Your task to perform on an android device: turn on data saver in the chrome app Image 0: 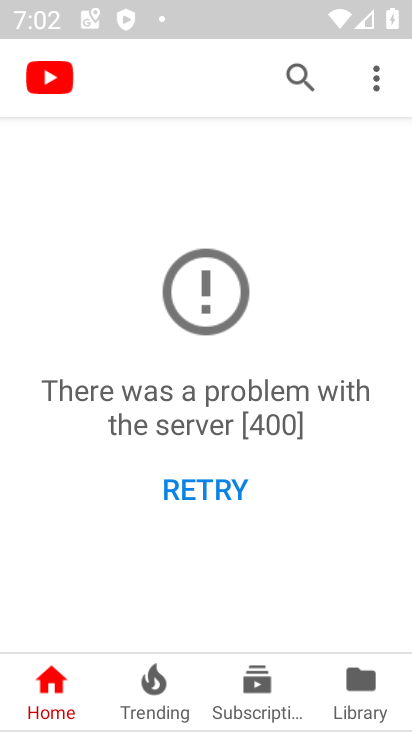
Step 0: press home button
Your task to perform on an android device: turn on data saver in the chrome app Image 1: 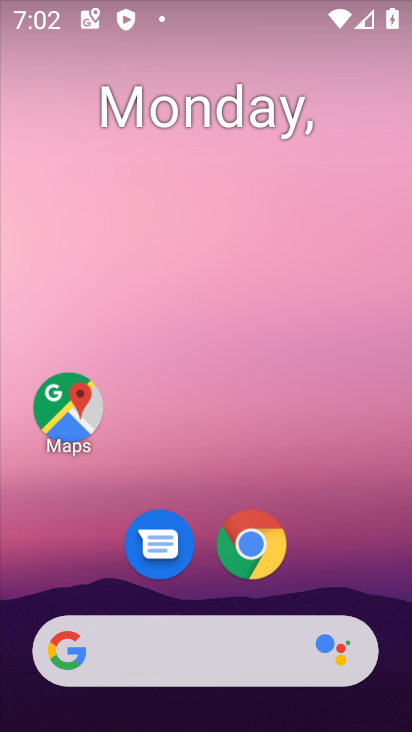
Step 1: click (259, 550)
Your task to perform on an android device: turn on data saver in the chrome app Image 2: 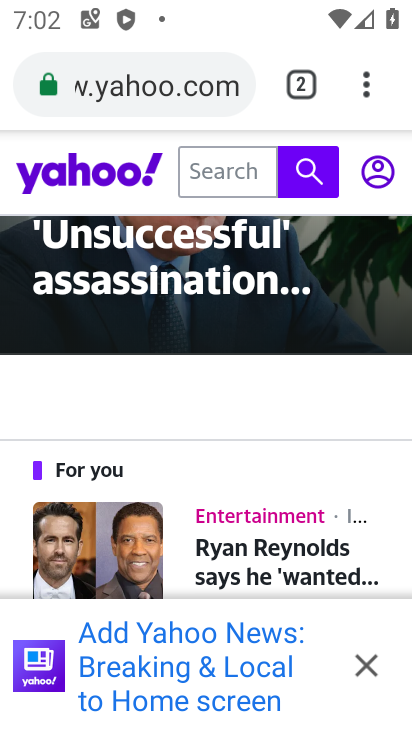
Step 2: click (365, 83)
Your task to perform on an android device: turn on data saver in the chrome app Image 3: 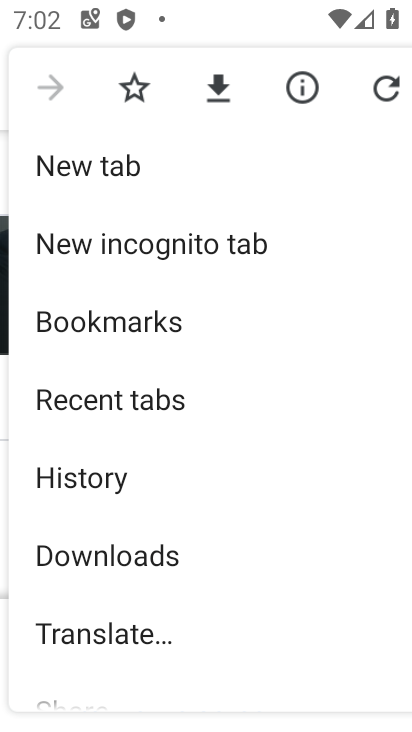
Step 3: drag from (260, 553) to (229, 117)
Your task to perform on an android device: turn on data saver in the chrome app Image 4: 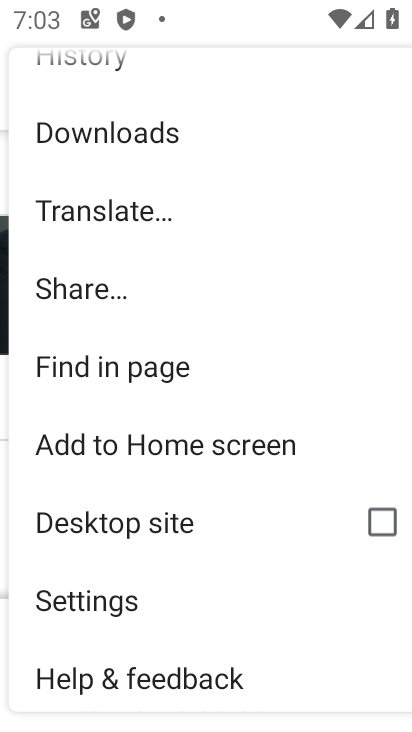
Step 4: click (95, 605)
Your task to perform on an android device: turn on data saver in the chrome app Image 5: 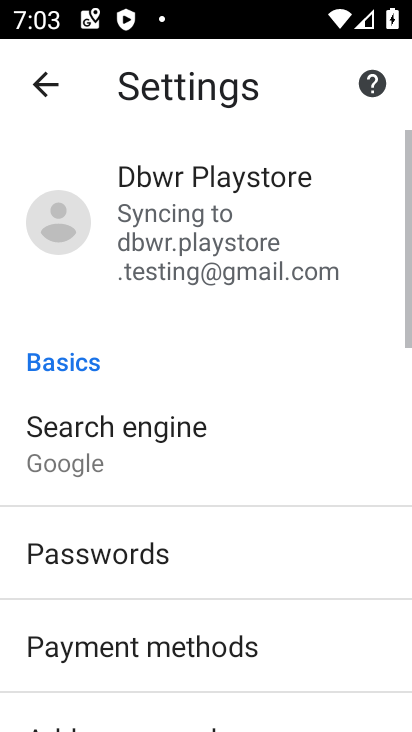
Step 5: drag from (254, 559) to (228, 224)
Your task to perform on an android device: turn on data saver in the chrome app Image 6: 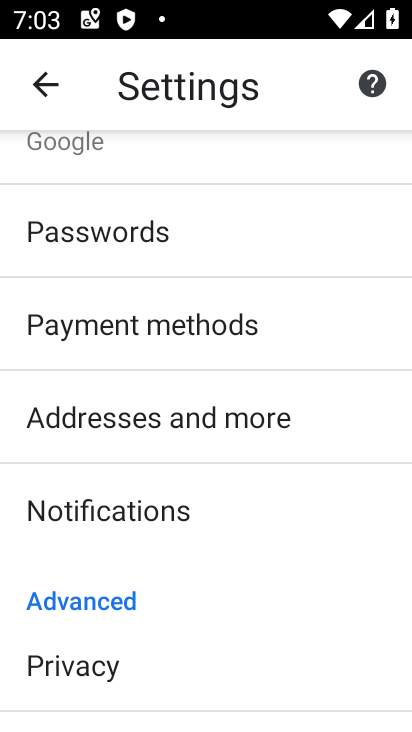
Step 6: drag from (258, 623) to (246, 336)
Your task to perform on an android device: turn on data saver in the chrome app Image 7: 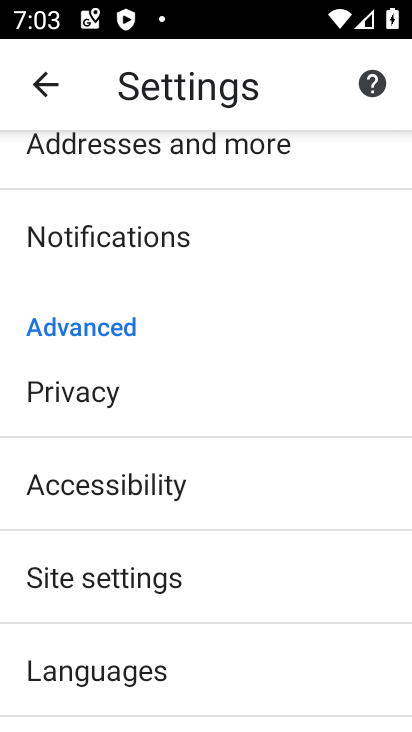
Step 7: drag from (223, 549) to (209, 356)
Your task to perform on an android device: turn on data saver in the chrome app Image 8: 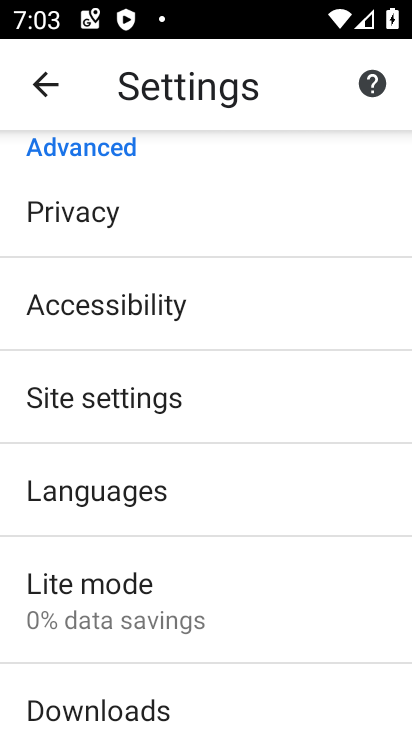
Step 8: click (98, 589)
Your task to perform on an android device: turn on data saver in the chrome app Image 9: 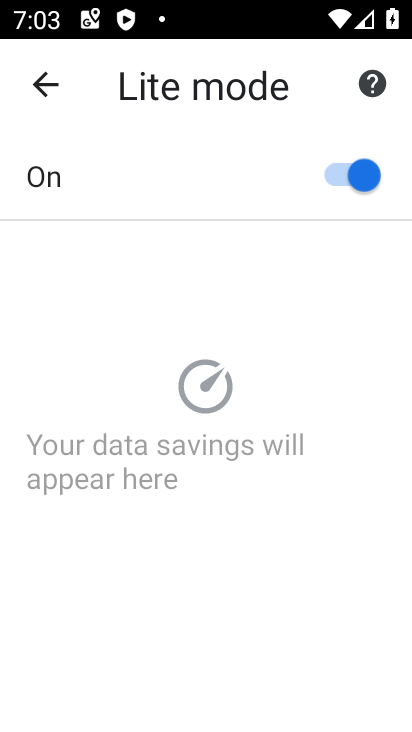
Step 9: task complete